Your task to perform on an android device: Open privacy settings Image 0: 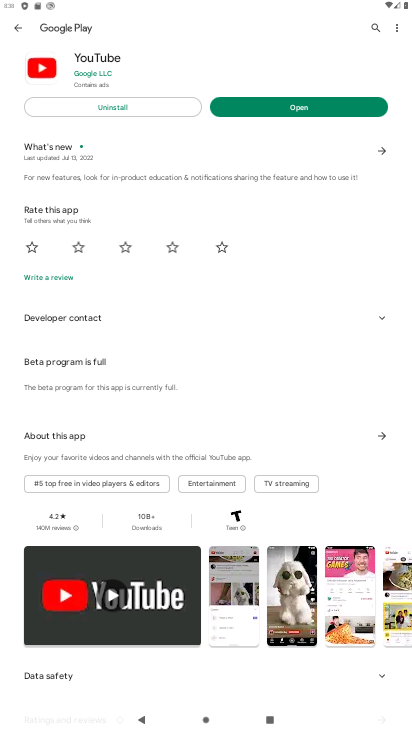
Step 0: press home button
Your task to perform on an android device: Open privacy settings Image 1: 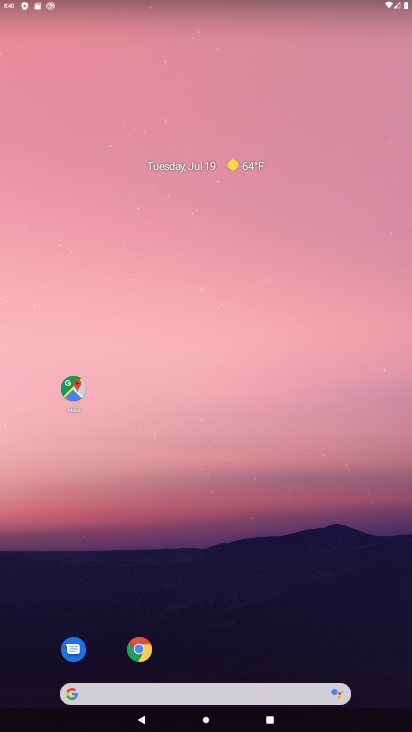
Step 1: drag from (221, 627) to (207, 28)
Your task to perform on an android device: Open privacy settings Image 2: 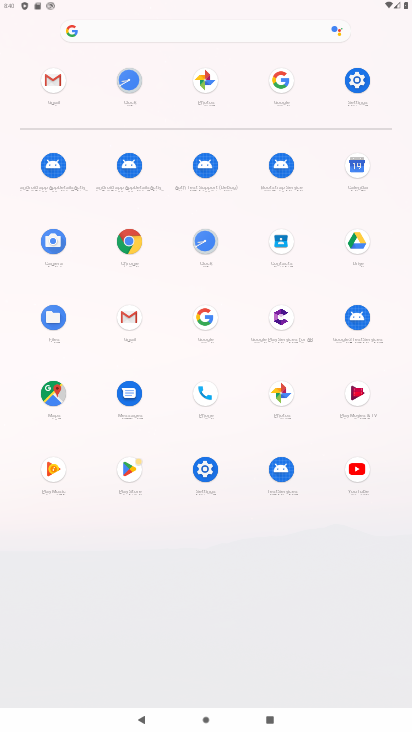
Step 2: click (370, 80)
Your task to perform on an android device: Open privacy settings Image 3: 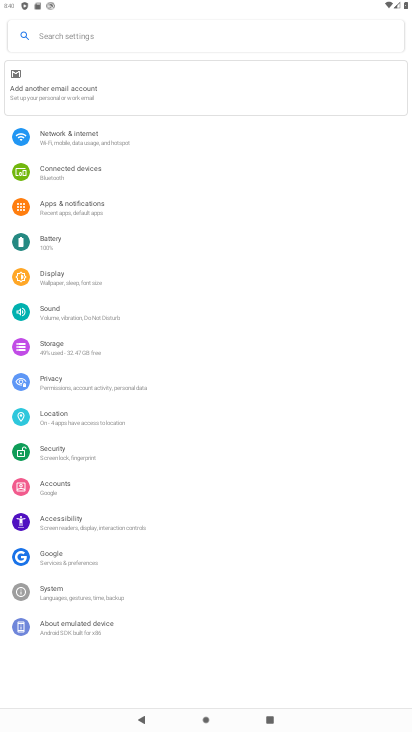
Step 3: click (70, 393)
Your task to perform on an android device: Open privacy settings Image 4: 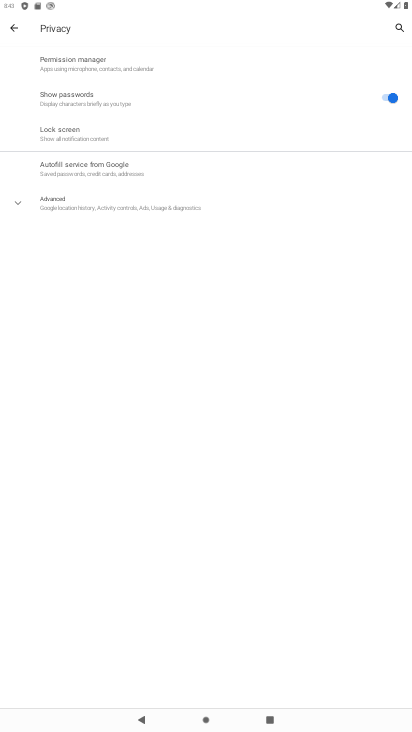
Step 4: task complete